Your task to perform on an android device: turn on sleep mode Image 0: 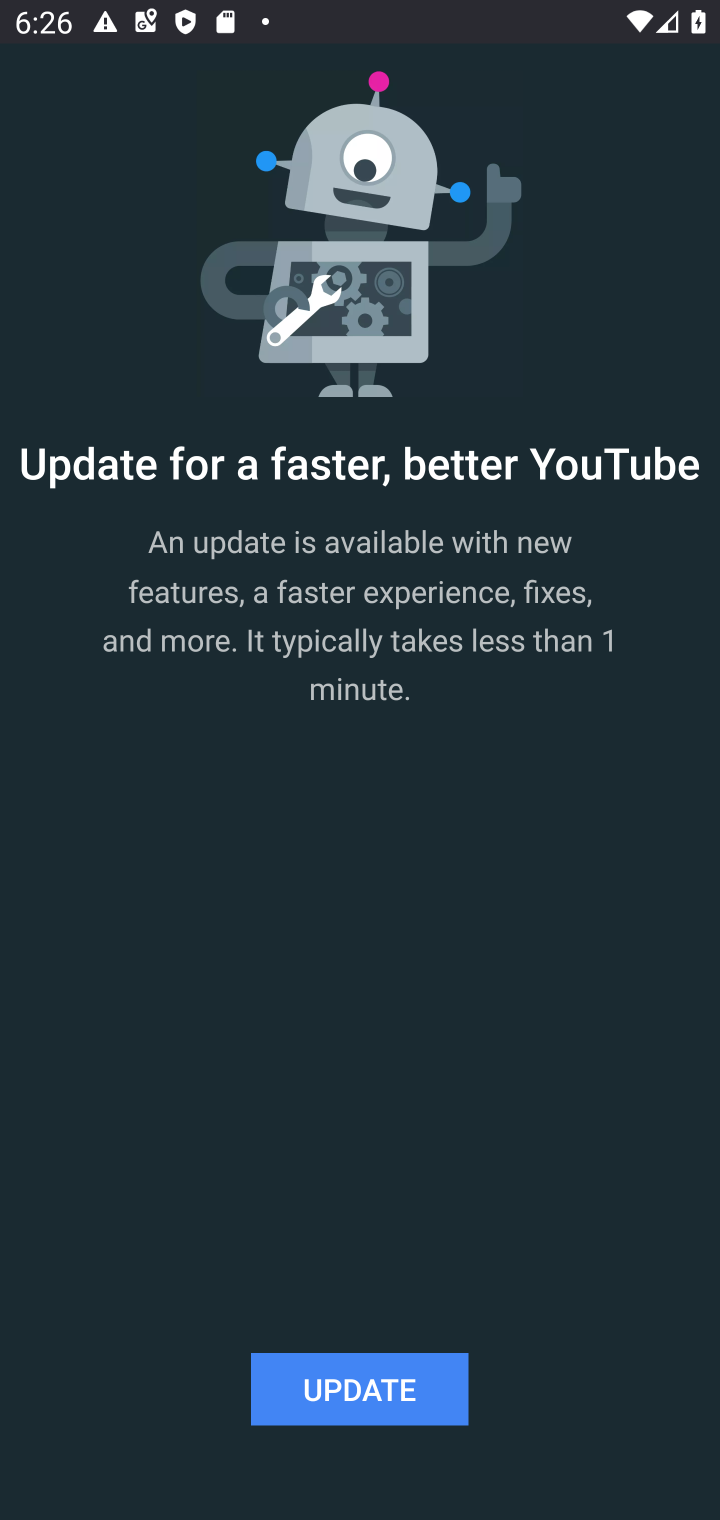
Step 0: press home button
Your task to perform on an android device: turn on sleep mode Image 1: 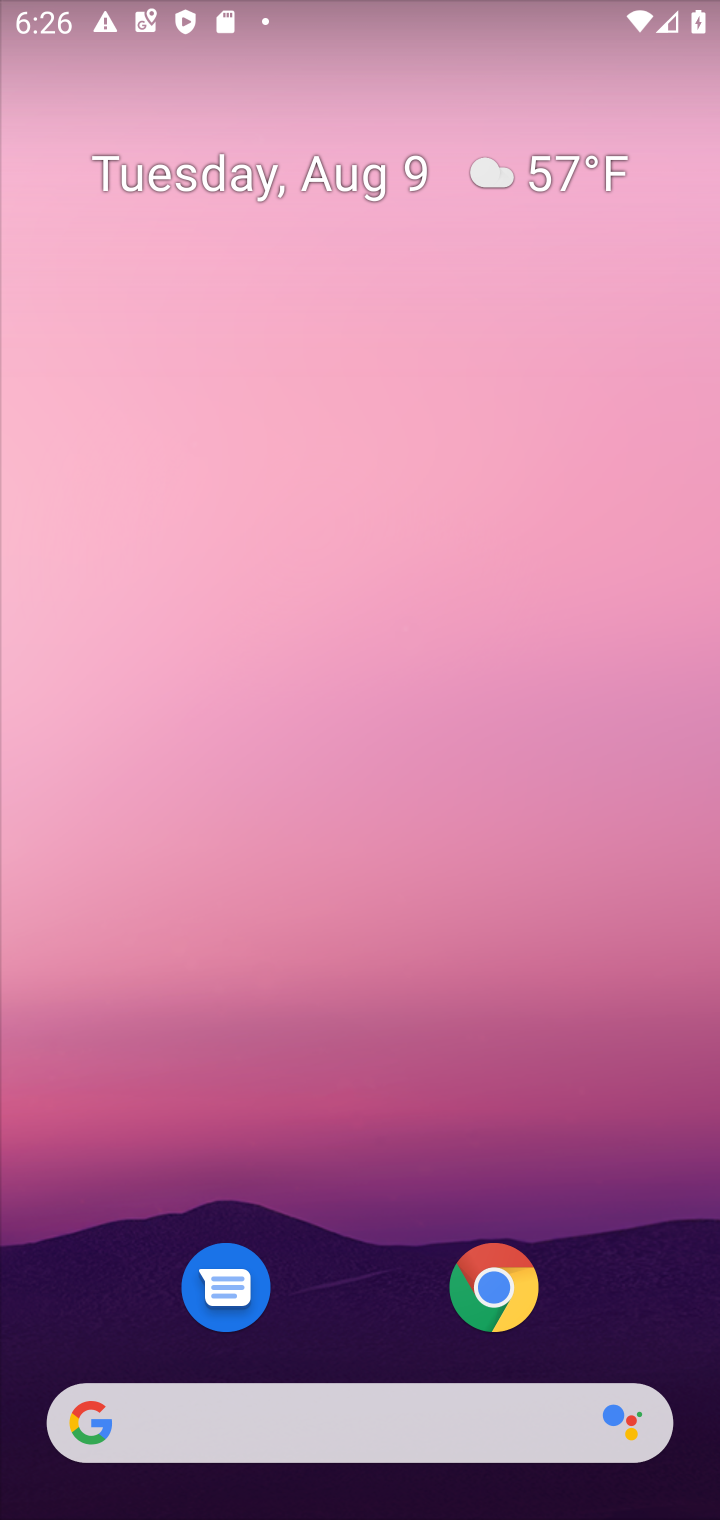
Step 1: drag from (442, 638) to (516, 270)
Your task to perform on an android device: turn on sleep mode Image 2: 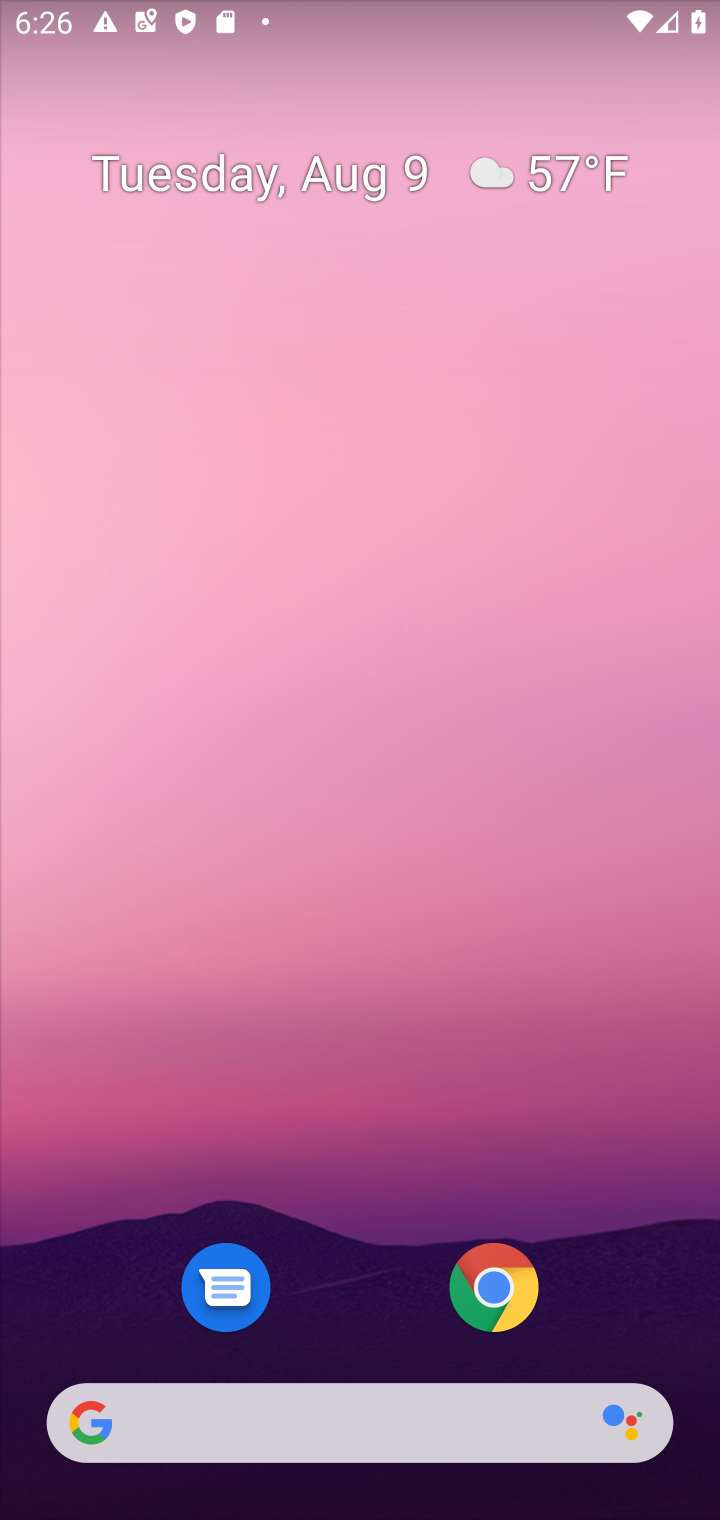
Step 2: drag from (358, 1110) to (436, 218)
Your task to perform on an android device: turn on sleep mode Image 3: 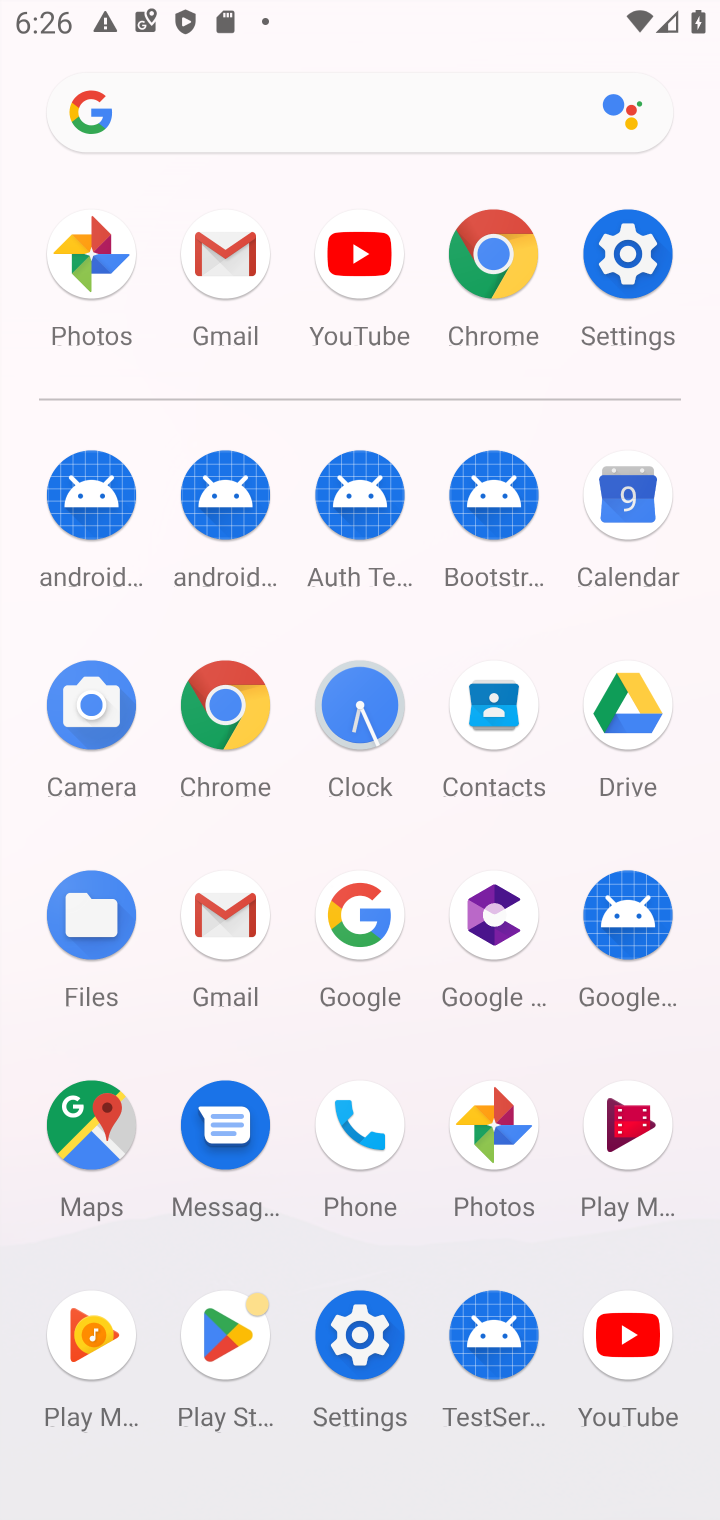
Step 3: click (644, 262)
Your task to perform on an android device: turn on sleep mode Image 4: 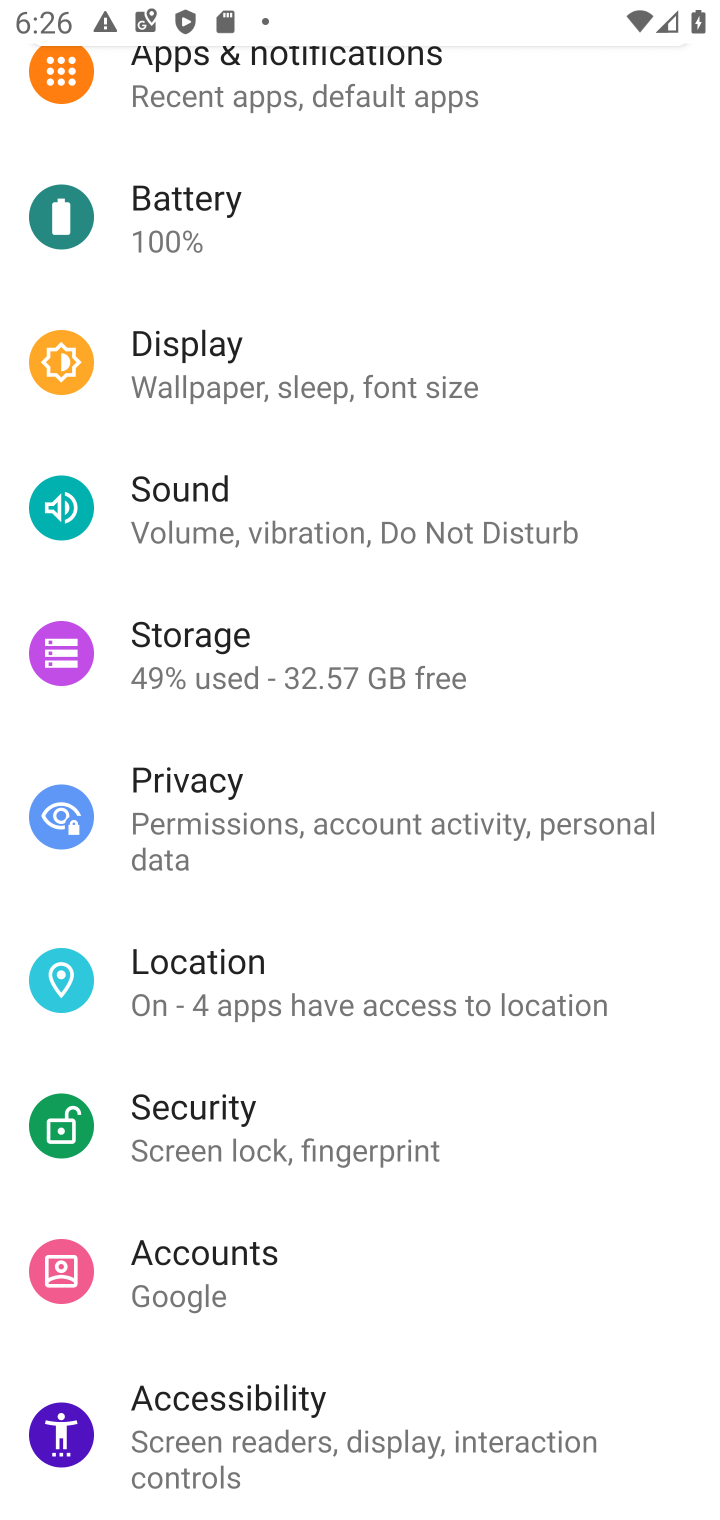
Step 4: task complete